Your task to perform on an android device: Open accessibility settings Image 0: 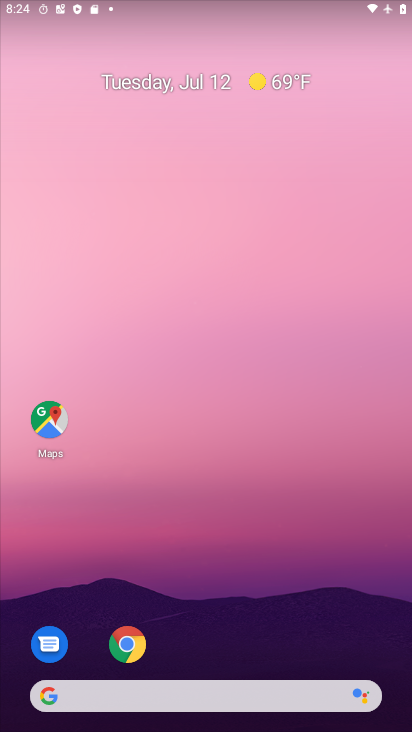
Step 0: drag from (207, 661) to (254, 66)
Your task to perform on an android device: Open accessibility settings Image 1: 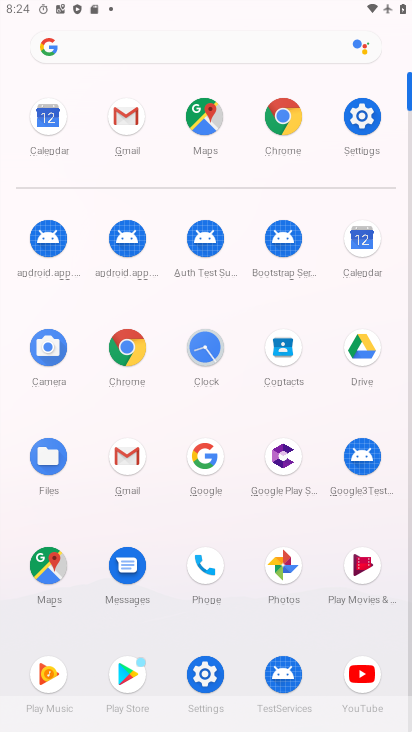
Step 1: click (368, 110)
Your task to perform on an android device: Open accessibility settings Image 2: 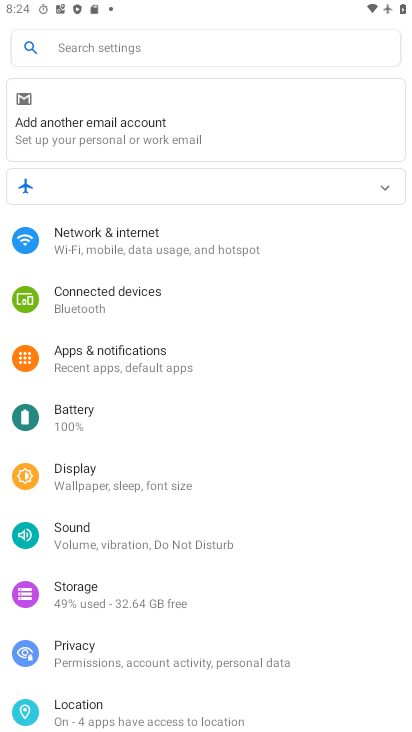
Step 2: drag from (184, 697) to (211, 67)
Your task to perform on an android device: Open accessibility settings Image 3: 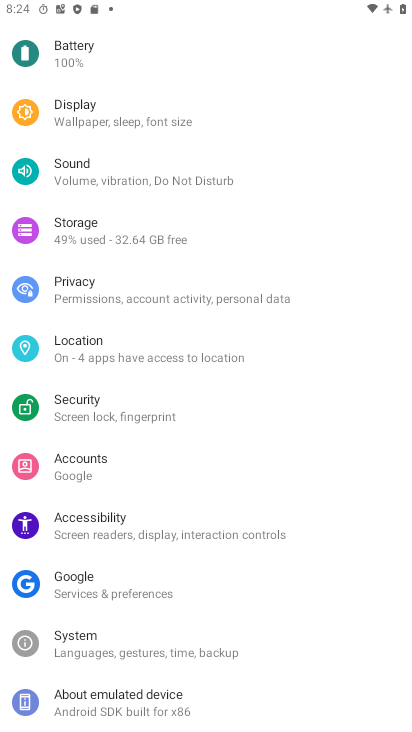
Step 3: click (137, 521)
Your task to perform on an android device: Open accessibility settings Image 4: 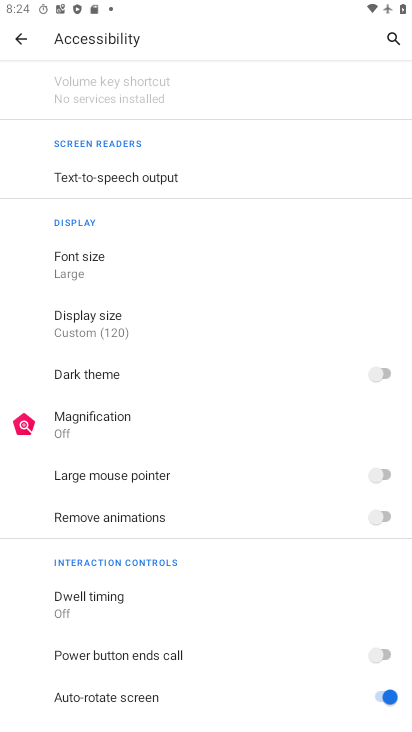
Step 4: task complete